Your task to perform on an android device: remove spam from my inbox in the gmail app Image 0: 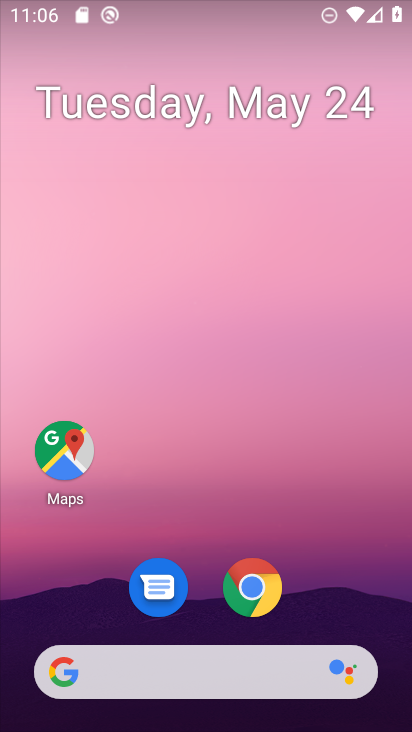
Step 0: drag from (368, 580) to (359, 94)
Your task to perform on an android device: remove spam from my inbox in the gmail app Image 1: 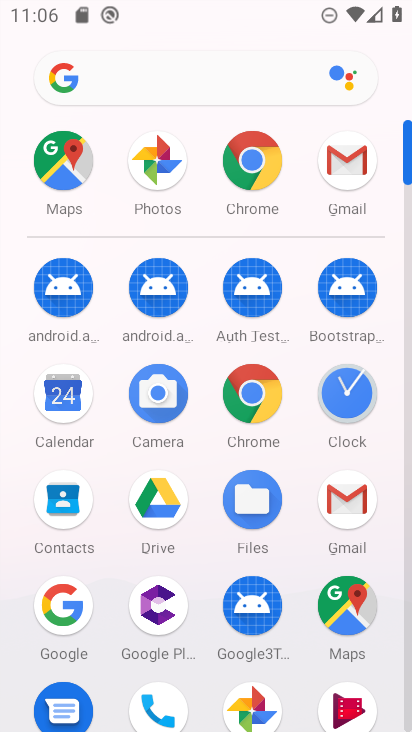
Step 1: click (333, 482)
Your task to perform on an android device: remove spam from my inbox in the gmail app Image 2: 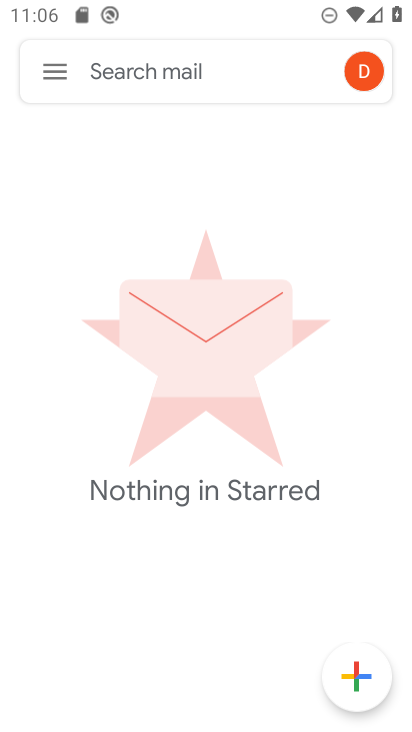
Step 2: click (59, 61)
Your task to perform on an android device: remove spam from my inbox in the gmail app Image 3: 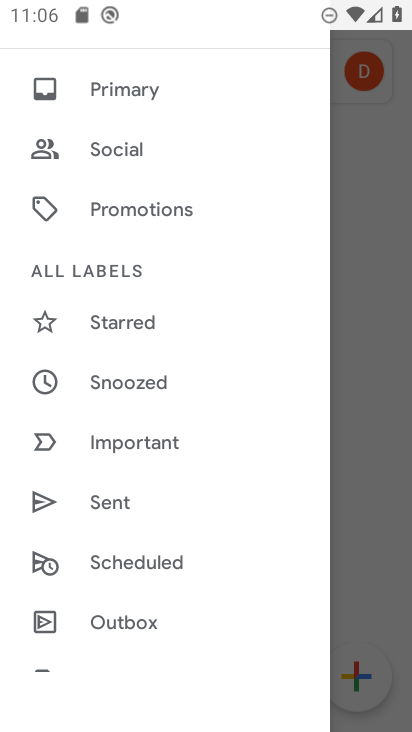
Step 3: task complete